Your task to perform on an android device: refresh tabs in the chrome app Image 0: 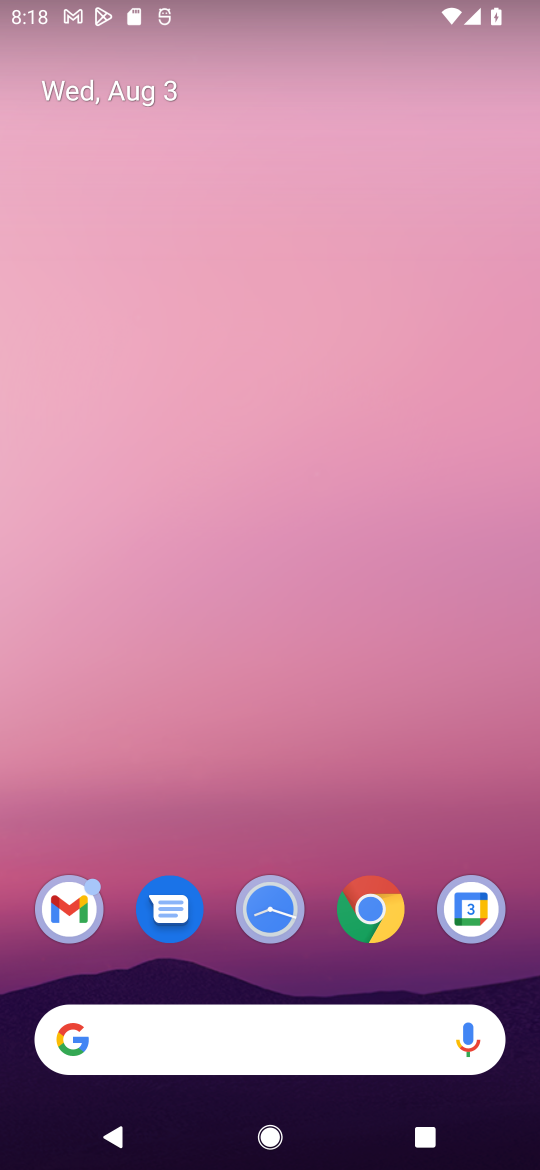
Step 0: drag from (410, 828) to (407, 114)
Your task to perform on an android device: refresh tabs in the chrome app Image 1: 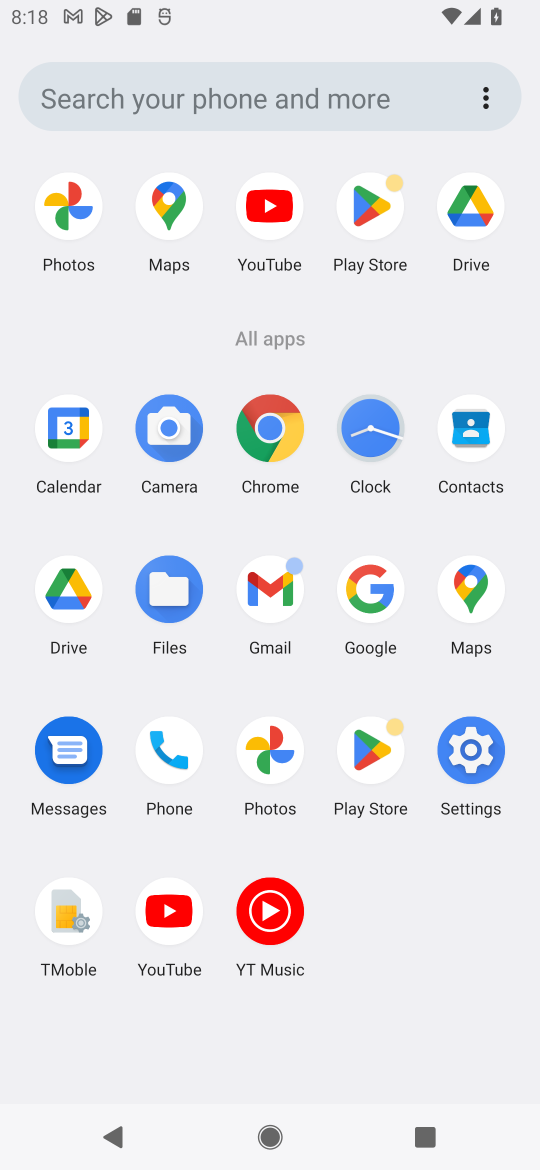
Step 1: click (264, 450)
Your task to perform on an android device: refresh tabs in the chrome app Image 2: 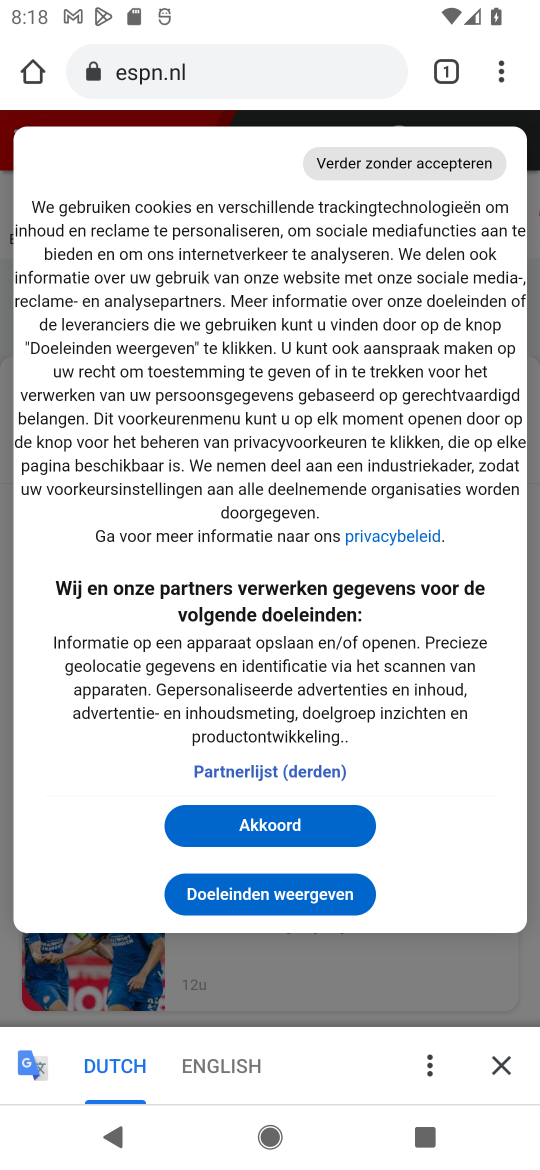
Step 2: click (497, 77)
Your task to perform on an android device: refresh tabs in the chrome app Image 3: 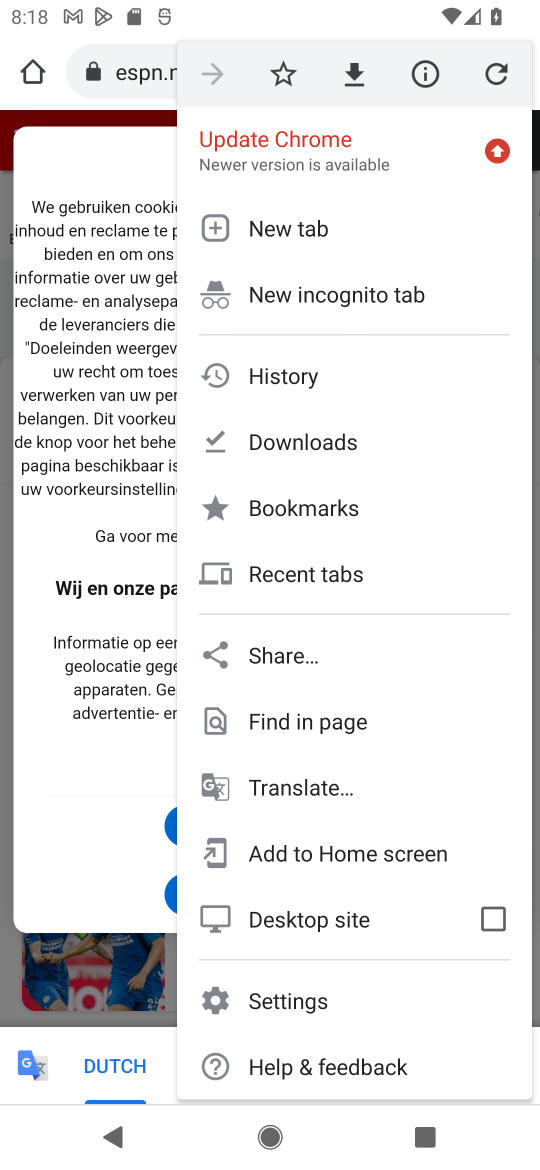
Step 3: click (494, 81)
Your task to perform on an android device: refresh tabs in the chrome app Image 4: 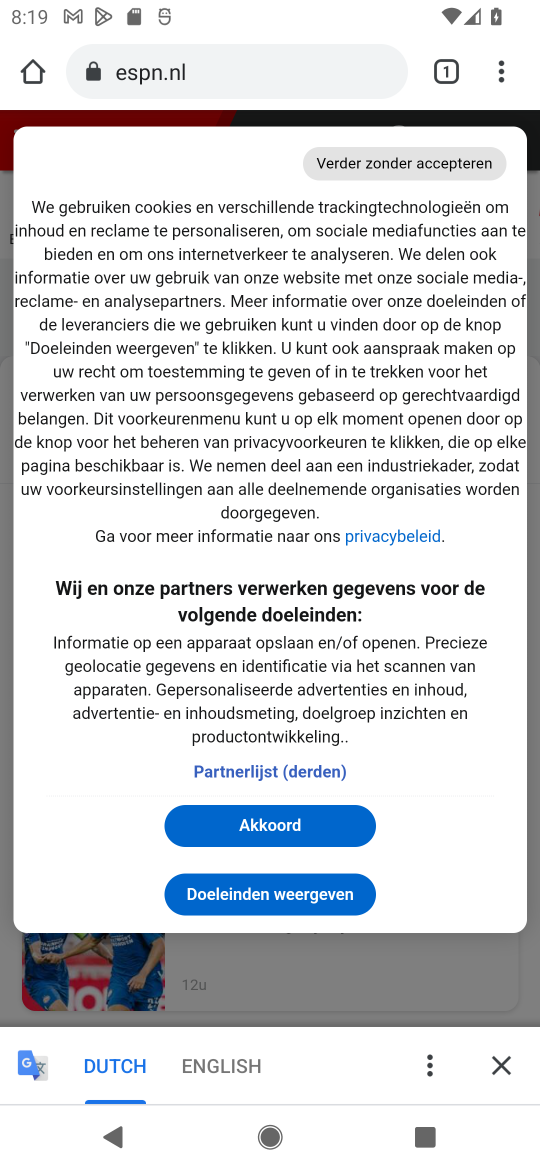
Step 4: task complete